Your task to perform on an android device: What is the capital of Mexico? Image 0: 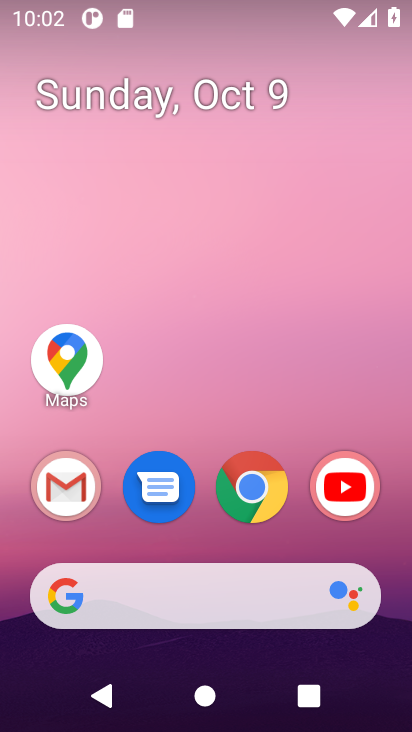
Step 0: click (242, 464)
Your task to perform on an android device: What is the capital of Mexico? Image 1: 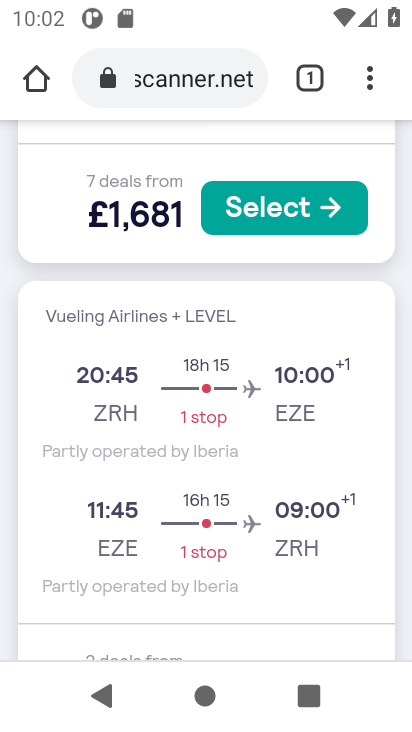
Step 1: click (201, 75)
Your task to perform on an android device: What is the capital of Mexico? Image 2: 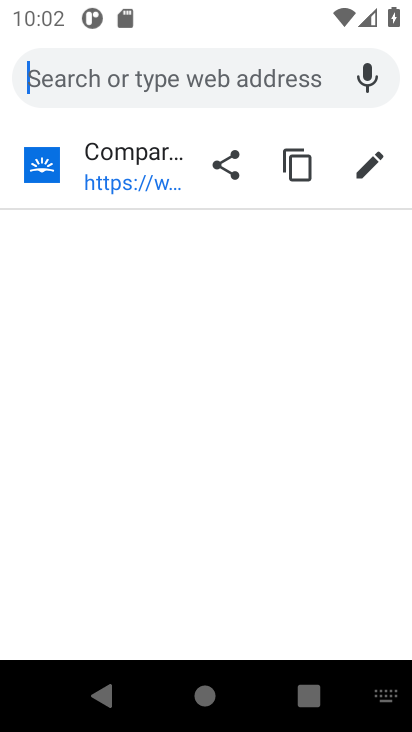
Step 2: type "capital of mexico"
Your task to perform on an android device: What is the capital of Mexico? Image 3: 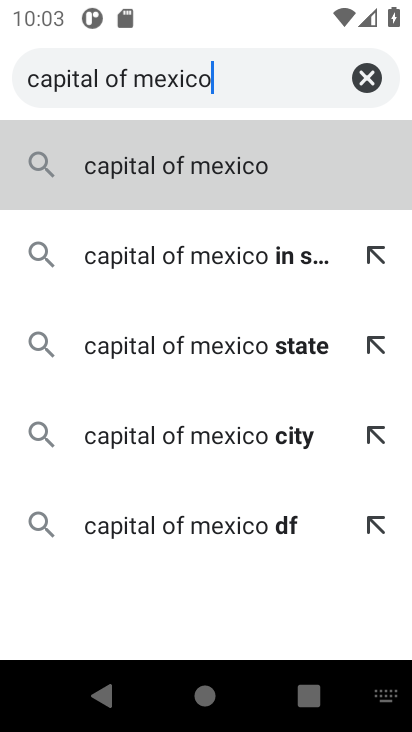
Step 3: type ""
Your task to perform on an android device: What is the capital of Mexico? Image 4: 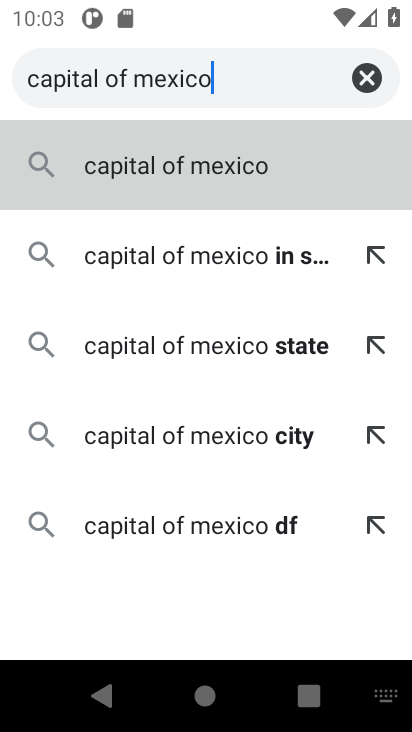
Step 4: press enter
Your task to perform on an android device: What is the capital of Mexico? Image 5: 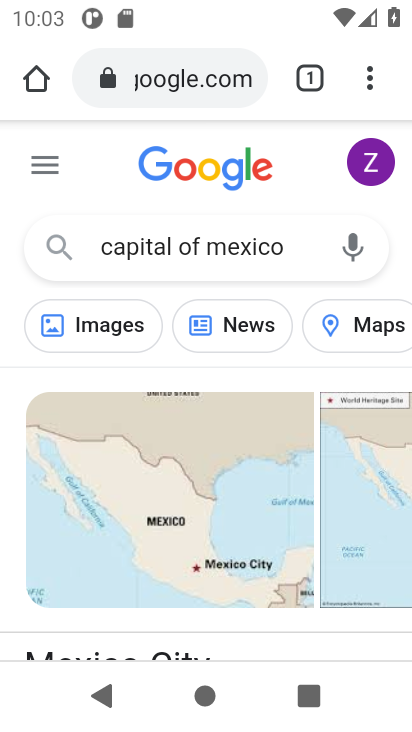
Step 5: task complete